Your task to perform on an android device: Is it going to rain today? Image 0: 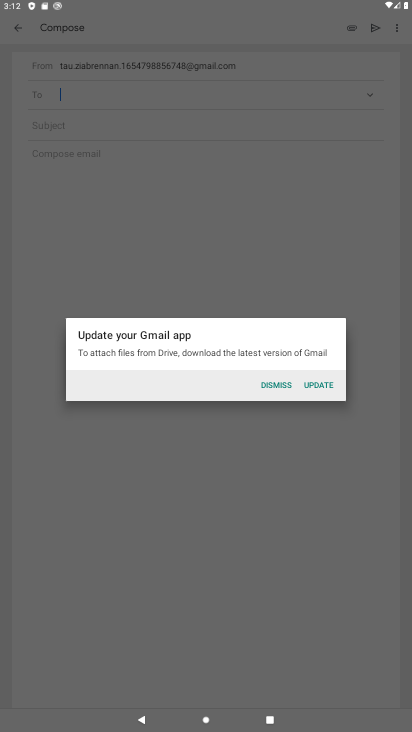
Step 0: press home button
Your task to perform on an android device: Is it going to rain today? Image 1: 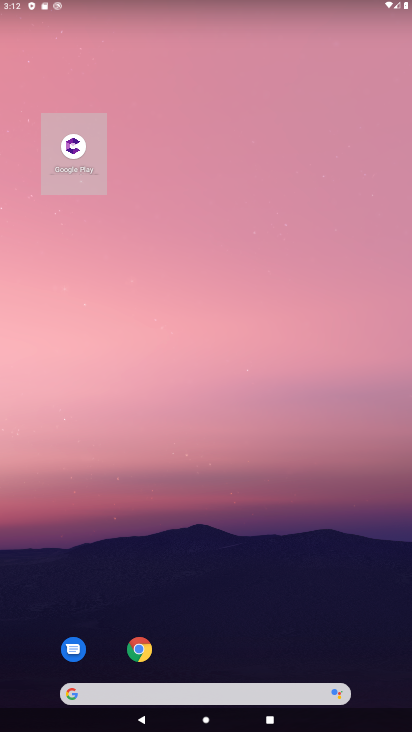
Step 1: drag from (72, 619) to (214, 385)
Your task to perform on an android device: Is it going to rain today? Image 2: 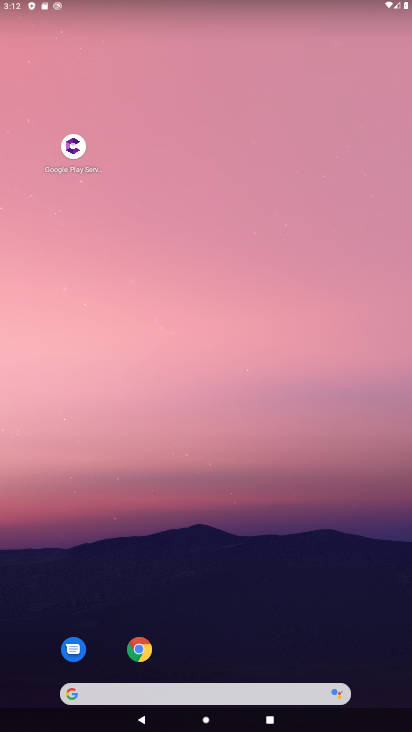
Step 2: click (101, 691)
Your task to perform on an android device: Is it going to rain today? Image 3: 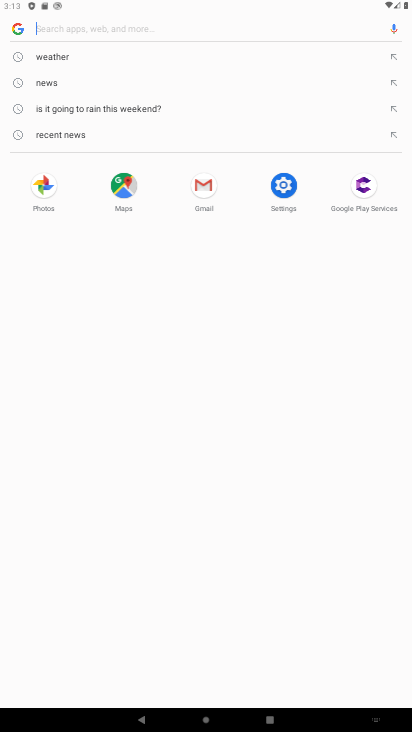
Step 3: type "Is it going to rain today?"
Your task to perform on an android device: Is it going to rain today? Image 4: 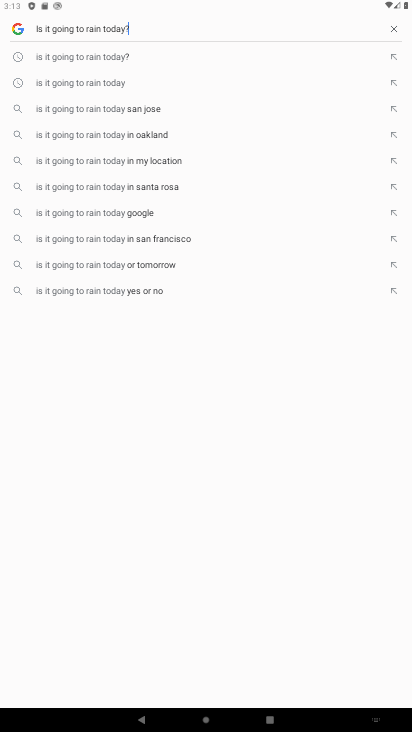
Step 4: type ""
Your task to perform on an android device: Is it going to rain today? Image 5: 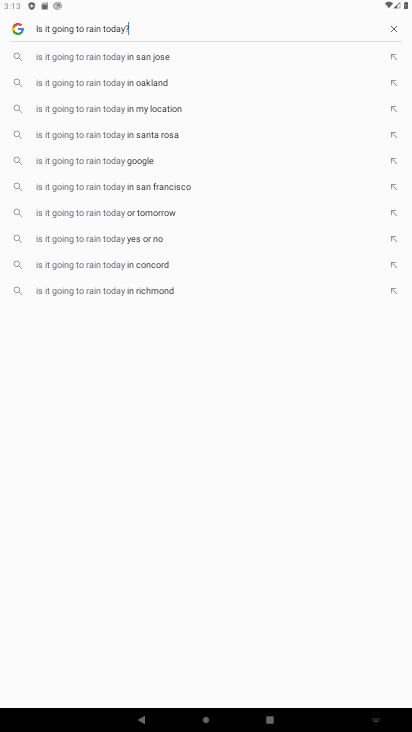
Step 5: type ""
Your task to perform on an android device: Is it going to rain today? Image 6: 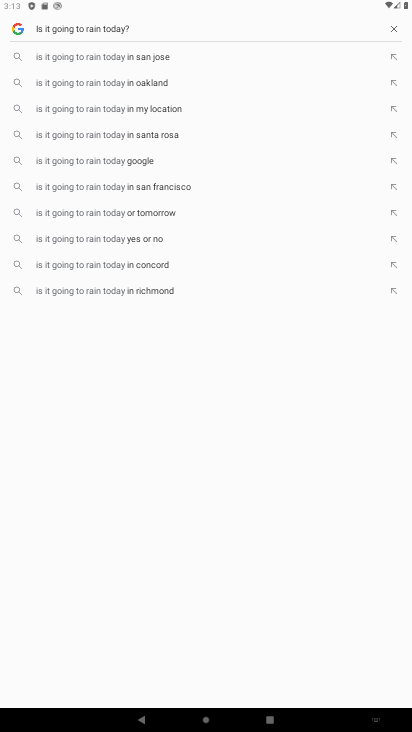
Step 6: type ""
Your task to perform on an android device: Is it going to rain today? Image 7: 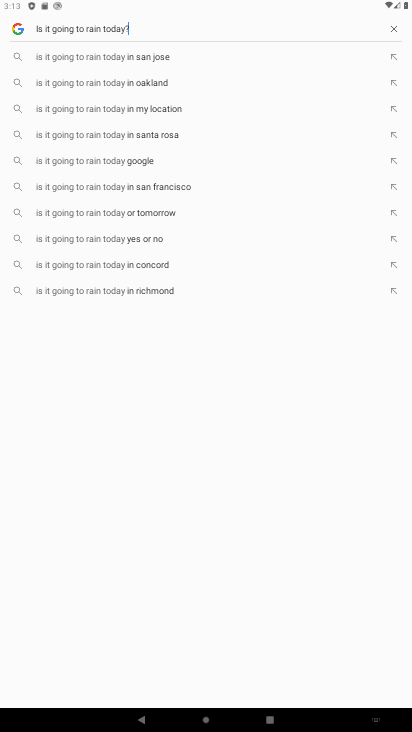
Step 7: task complete